Your task to perform on an android device: allow notifications from all sites in the chrome app Image 0: 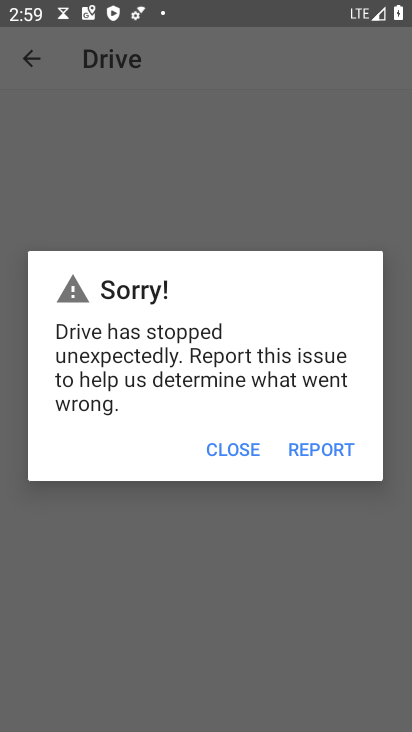
Step 0: press home button
Your task to perform on an android device: allow notifications from all sites in the chrome app Image 1: 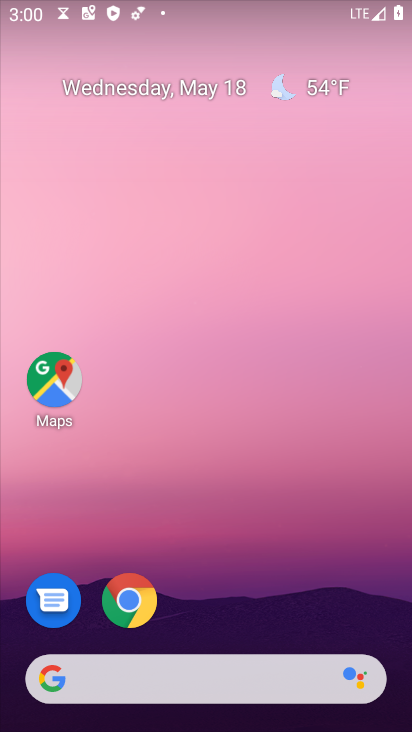
Step 1: drag from (158, 667) to (227, 239)
Your task to perform on an android device: allow notifications from all sites in the chrome app Image 2: 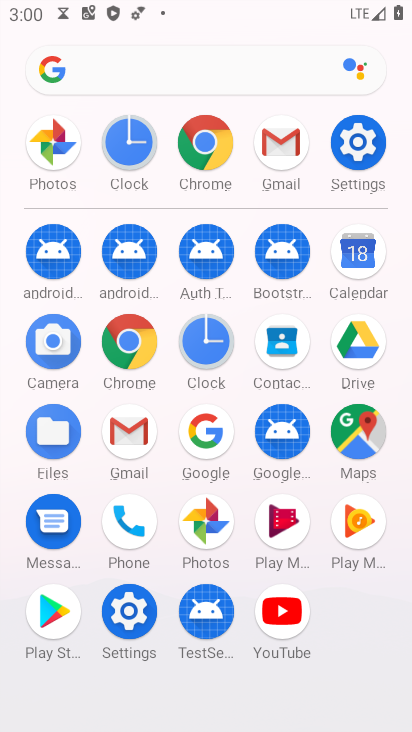
Step 2: click (203, 148)
Your task to perform on an android device: allow notifications from all sites in the chrome app Image 3: 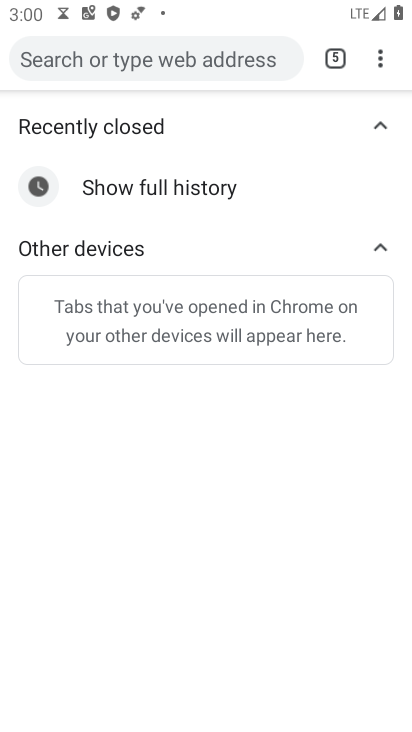
Step 3: drag from (375, 57) to (211, 492)
Your task to perform on an android device: allow notifications from all sites in the chrome app Image 4: 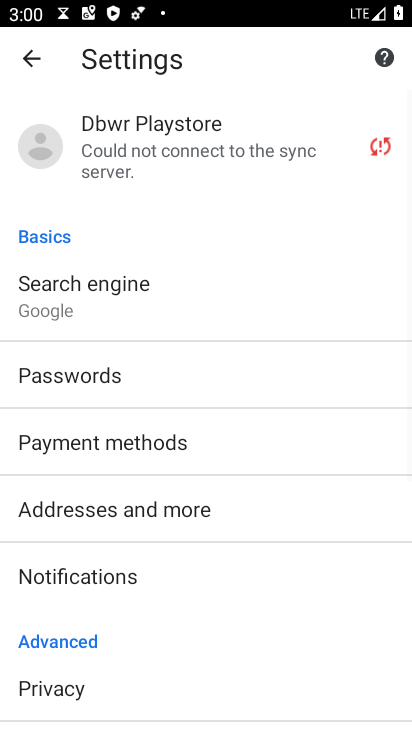
Step 4: drag from (168, 660) to (305, 256)
Your task to perform on an android device: allow notifications from all sites in the chrome app Image 5: 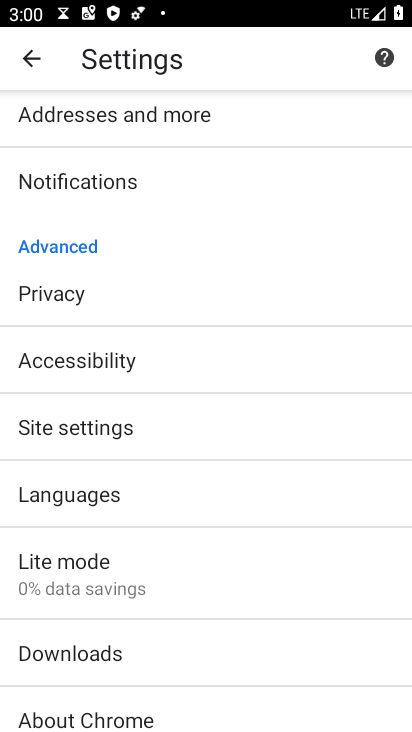
Step 5: click (109, 436)
Your task to perform on an android device: allow notifications from all sites in the chrome app Image 6: 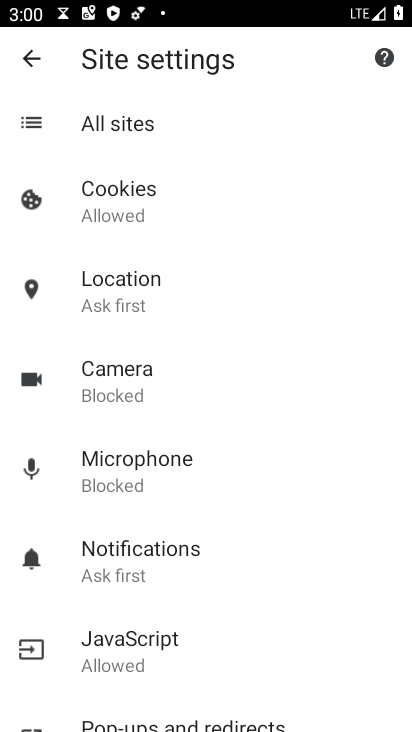
Step 6: click (152, 545)
Your task to perform on an android device: allow notifications from all sites in the chrome app Image 7: 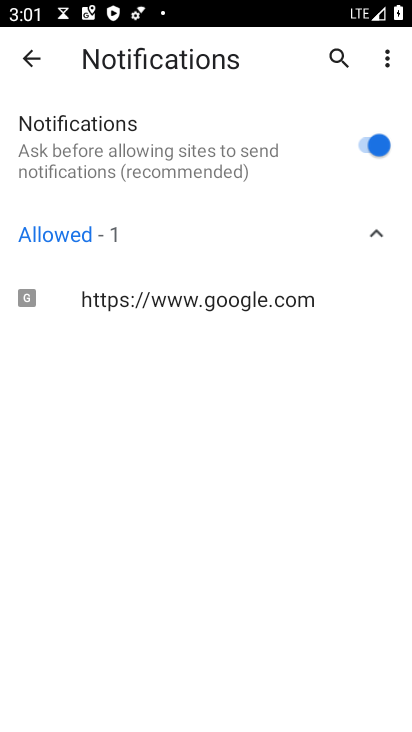
Step 7: task complete